Your task to perform on an android device: See recent photos Image 0: 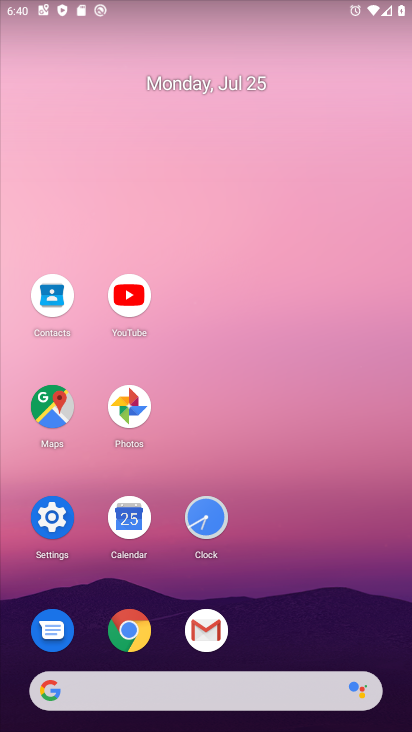
Step 0: click (126, 408)
Your task to perform on an android device: See recent photos Image 1: 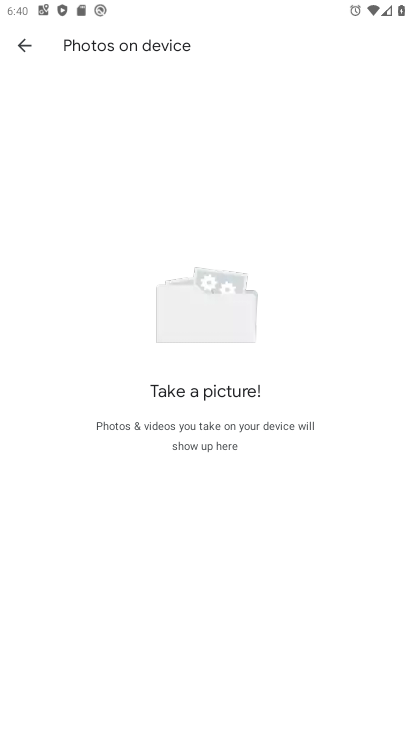
Step 1: click (22, 44)
Your task to perform on an android device: See recent photos Image 2: 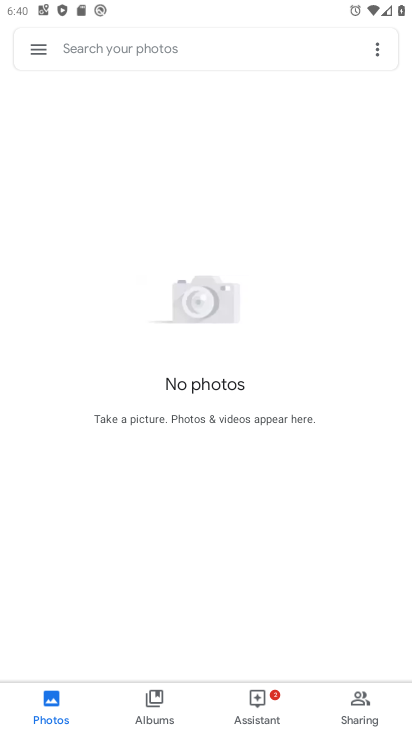
Step 2: task complete